Your task to perform on an android device: find photos in the google photos app Image 0: 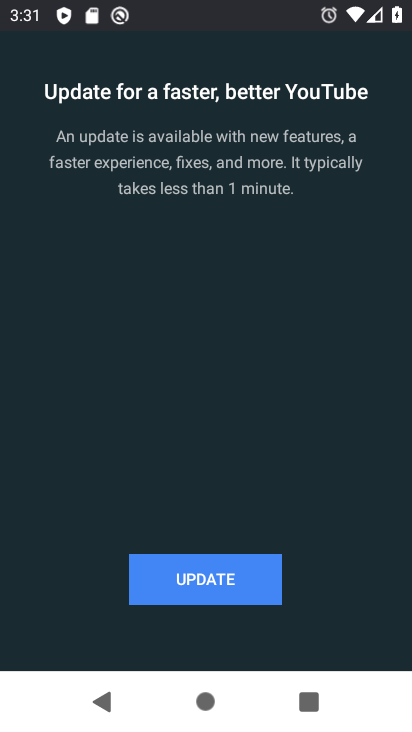
Step 0: press home button
Your task to perform on an android device: find photos in the google photos app Image 1: 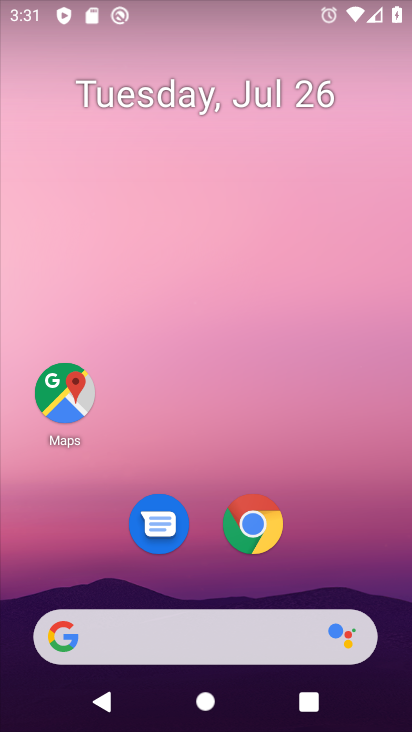
Step 1: drag from (320, 552) to (228, 201)
Your task to perform on an android device: find photos in the google photos app Image 2: 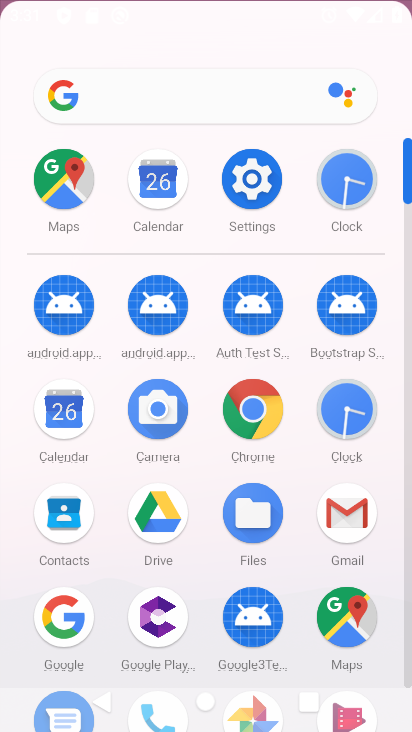
Step 2: click (197, 78)
Your task to perform on an android device: find photos in the google photos app Image 3: 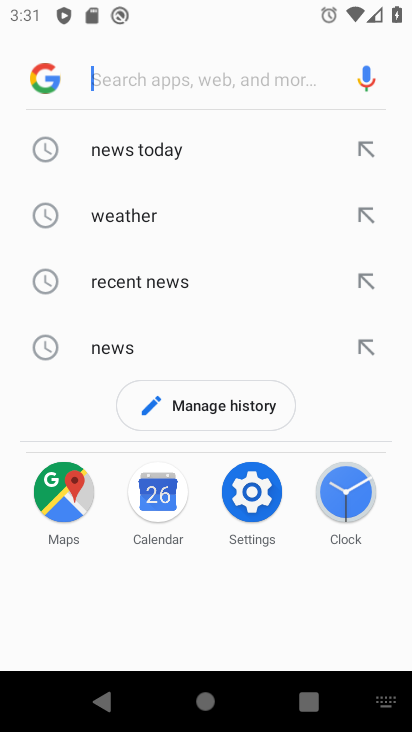
Step 3: press home button
Your task to perform on an android device: find photos in the google photos app Image 4: 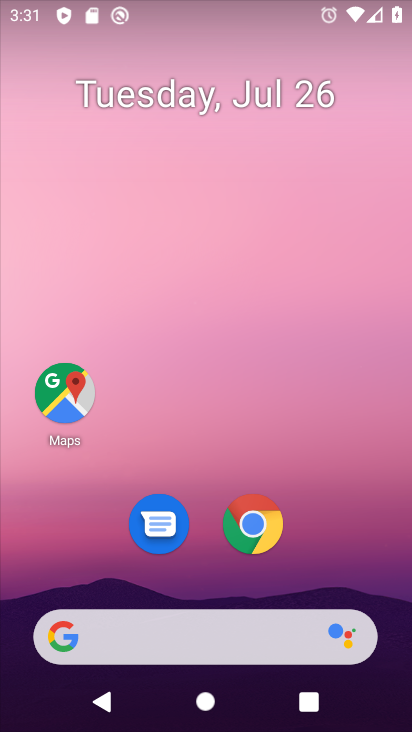
Step 4: click (344, 551)
Your task to perform on an android device: find photos in the google photos app Image 5: 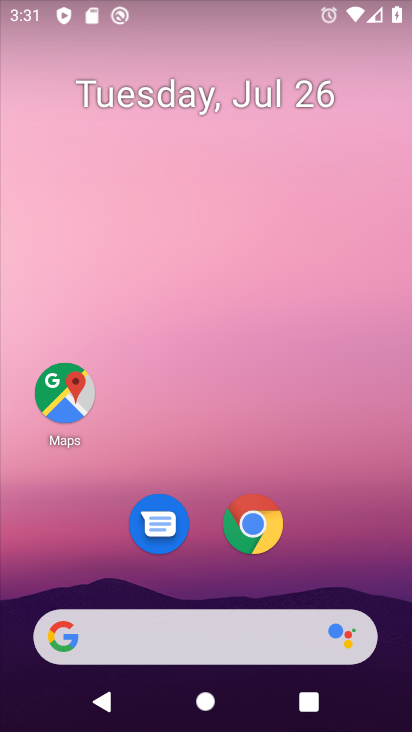
Step 5: drag from (288, 200) to (282, 163)
Your task to perform on an android device: find photos in the google photos app Image 6: 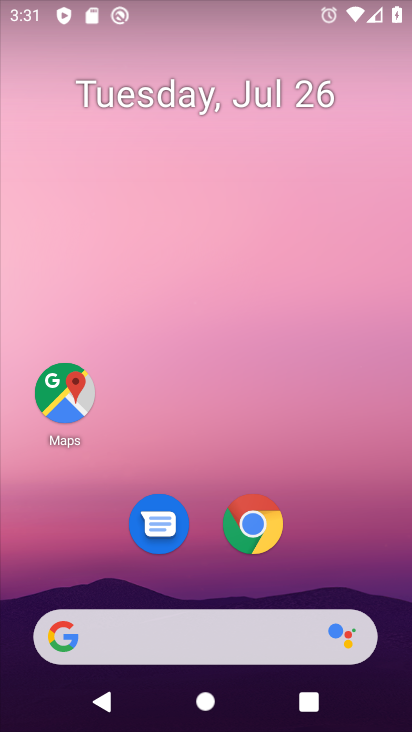
Step 6: click (265, 60)
Your task to perform on an android device: find photos in the google photos app Image 7: 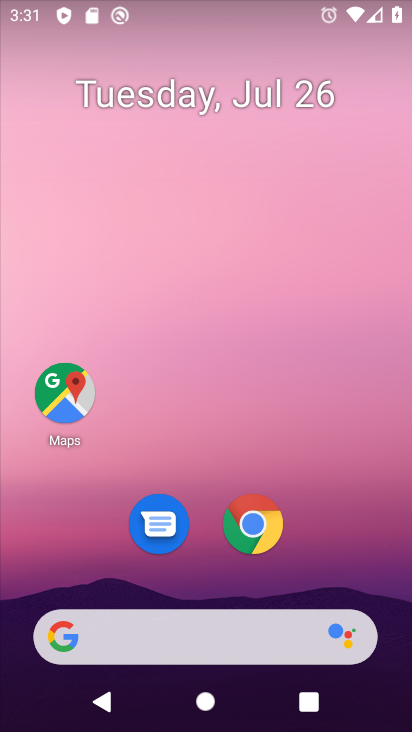
Step 7: drag from (328, 537) to (298, 23)
Your task to perform on an android device: find photos in the google photos app Image 8: 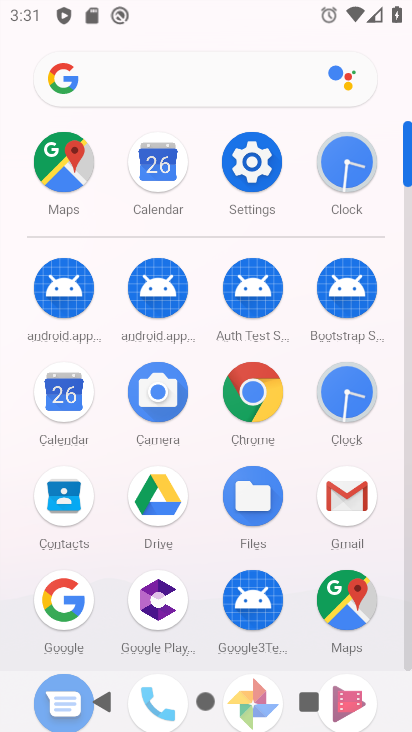
Step 8: drag from (318, 516) to (300, 251)
Your task to perform on an android device: find photos in the google photos app Image 9: 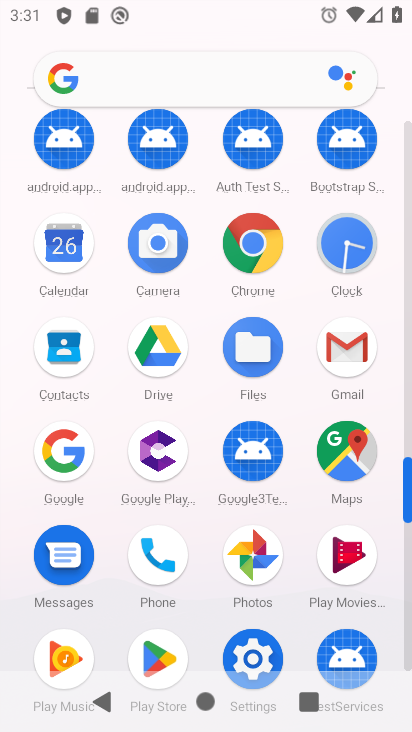
Step 9: click (255, 552)
Your task to perform on an android device: find photos in the google photos app Image 10: 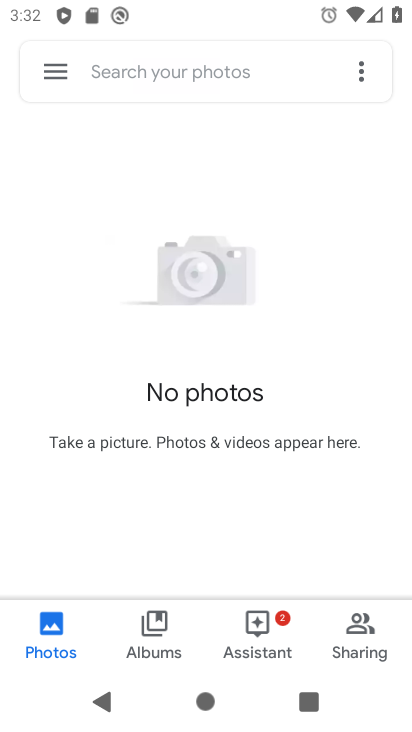
Step 10: task complete